Your task to perform on an android device: Empty the shopping cart on amazon. Image 0: 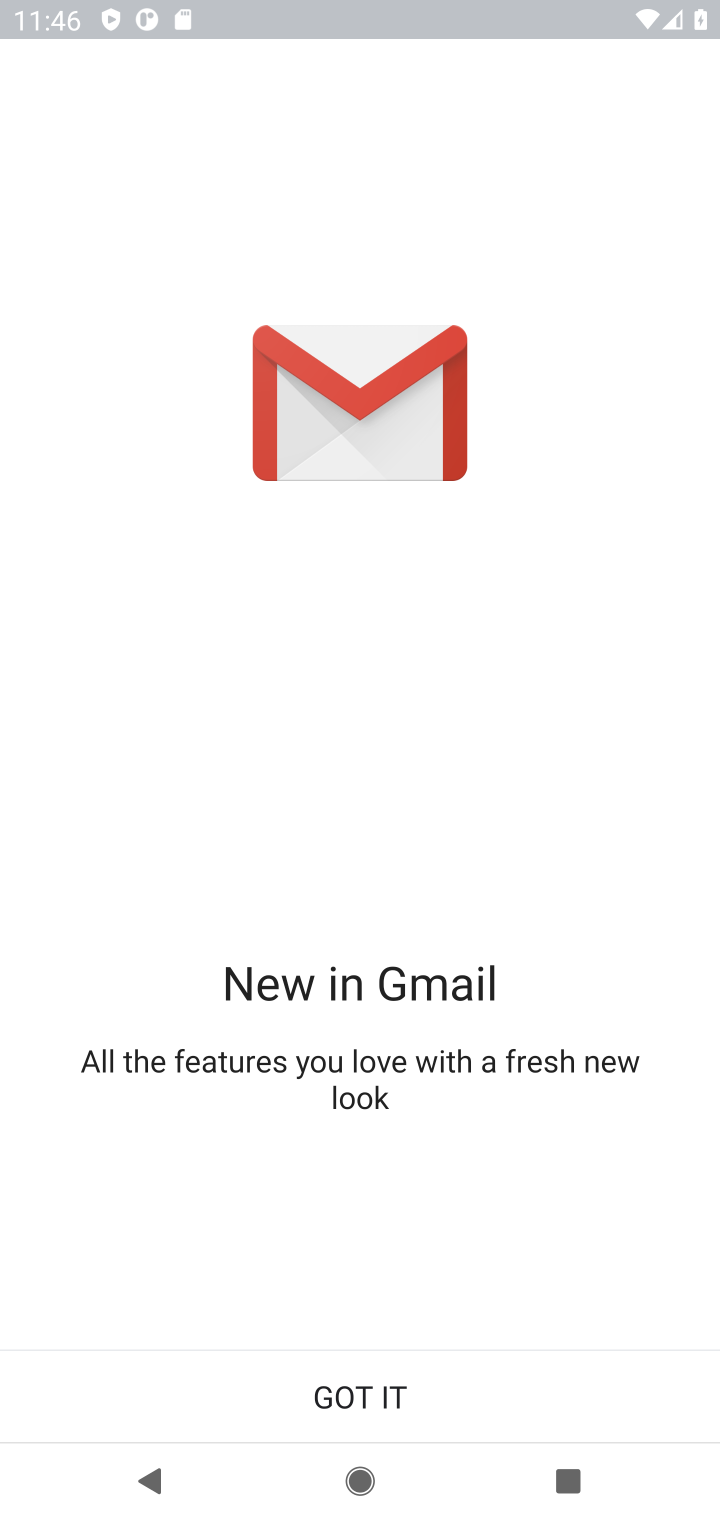
Step 0: press home button
Your task to perform on an android device: Empty the shopping cart on amazon. Image 1: 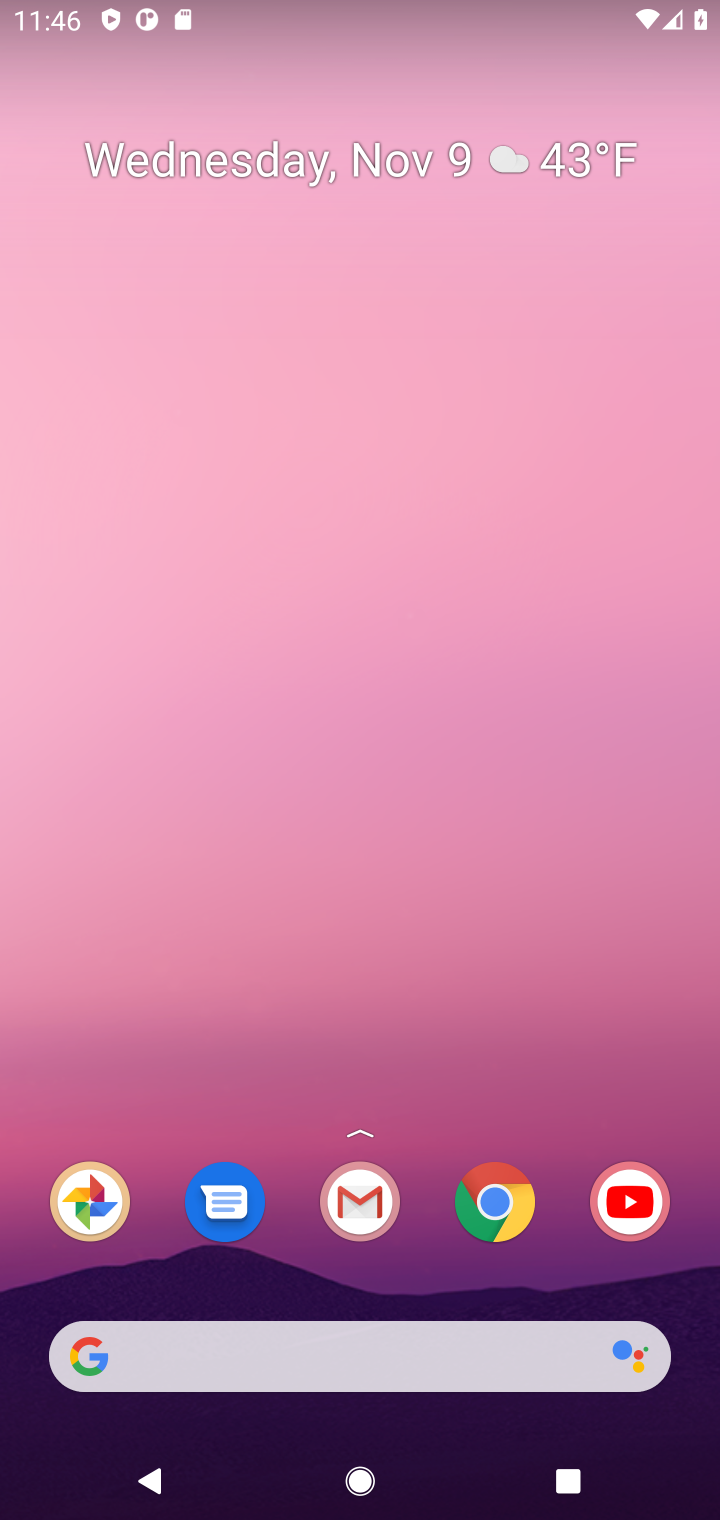
Step 1: click (498, 1213)
Your task to perform on an android device: Empty the shopping cart on amazon. Image 2: 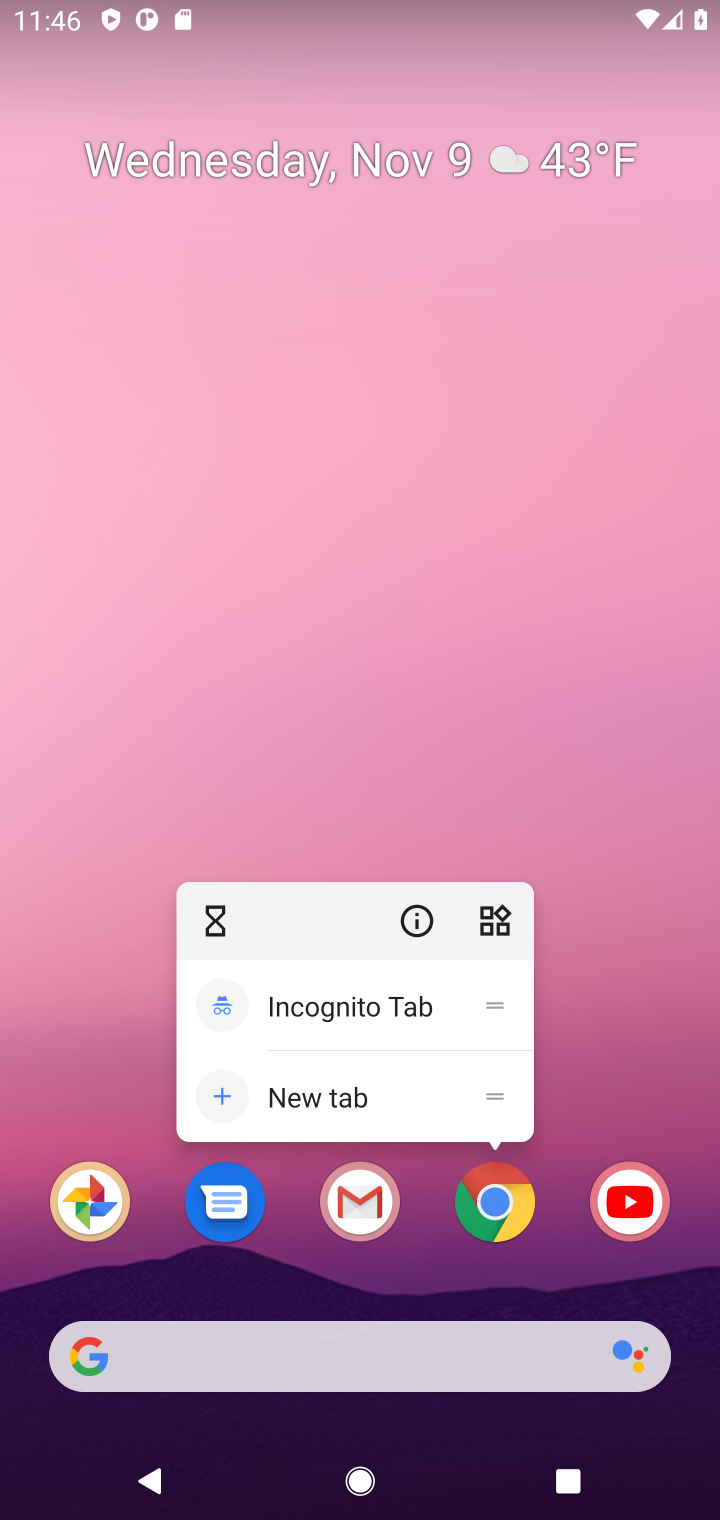
Step 2: click (498, 1213)
Your task to perform on an android device: Empty the shopping cart on amazon. Image 3: 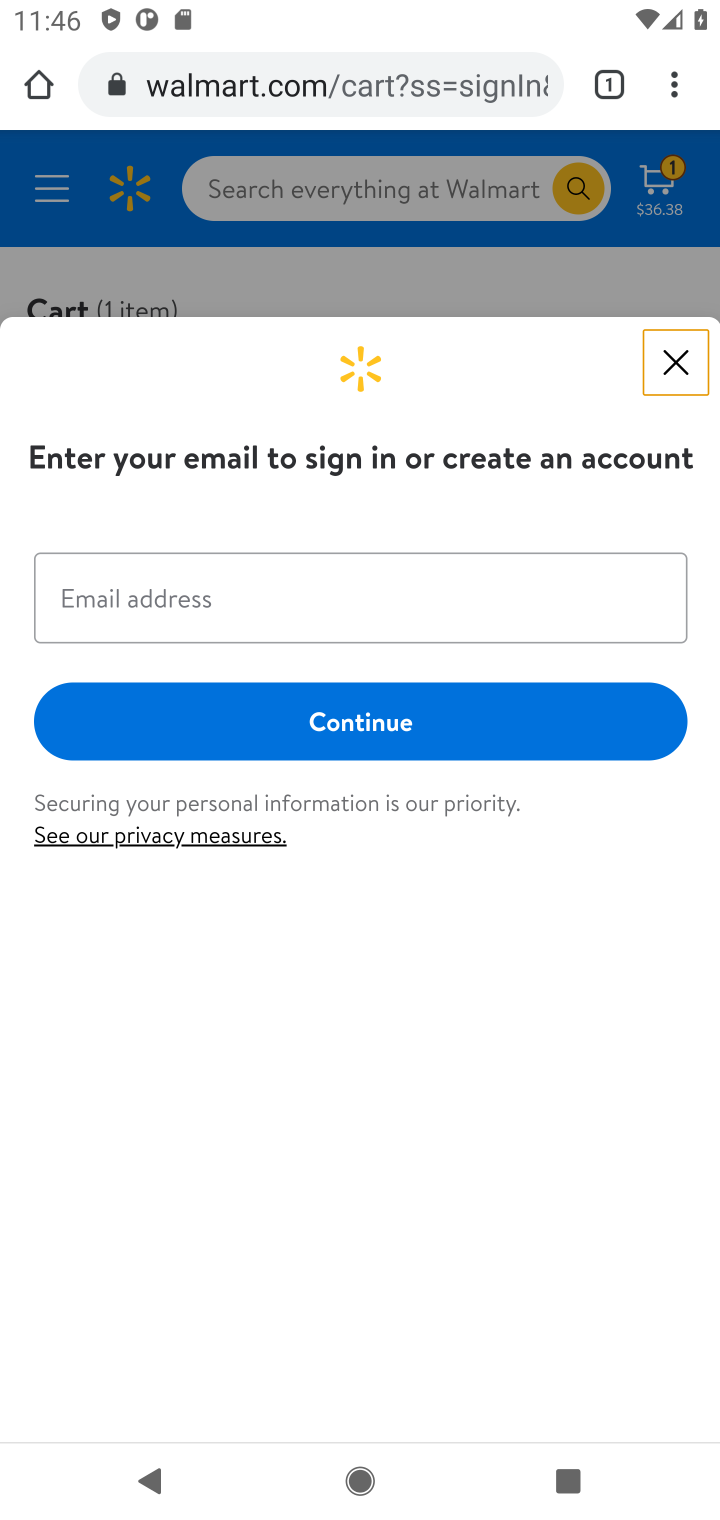
Step 3: click (424, 79)
Your task to perform on an android device: Empty the shopping cart on amazon. Image 4: 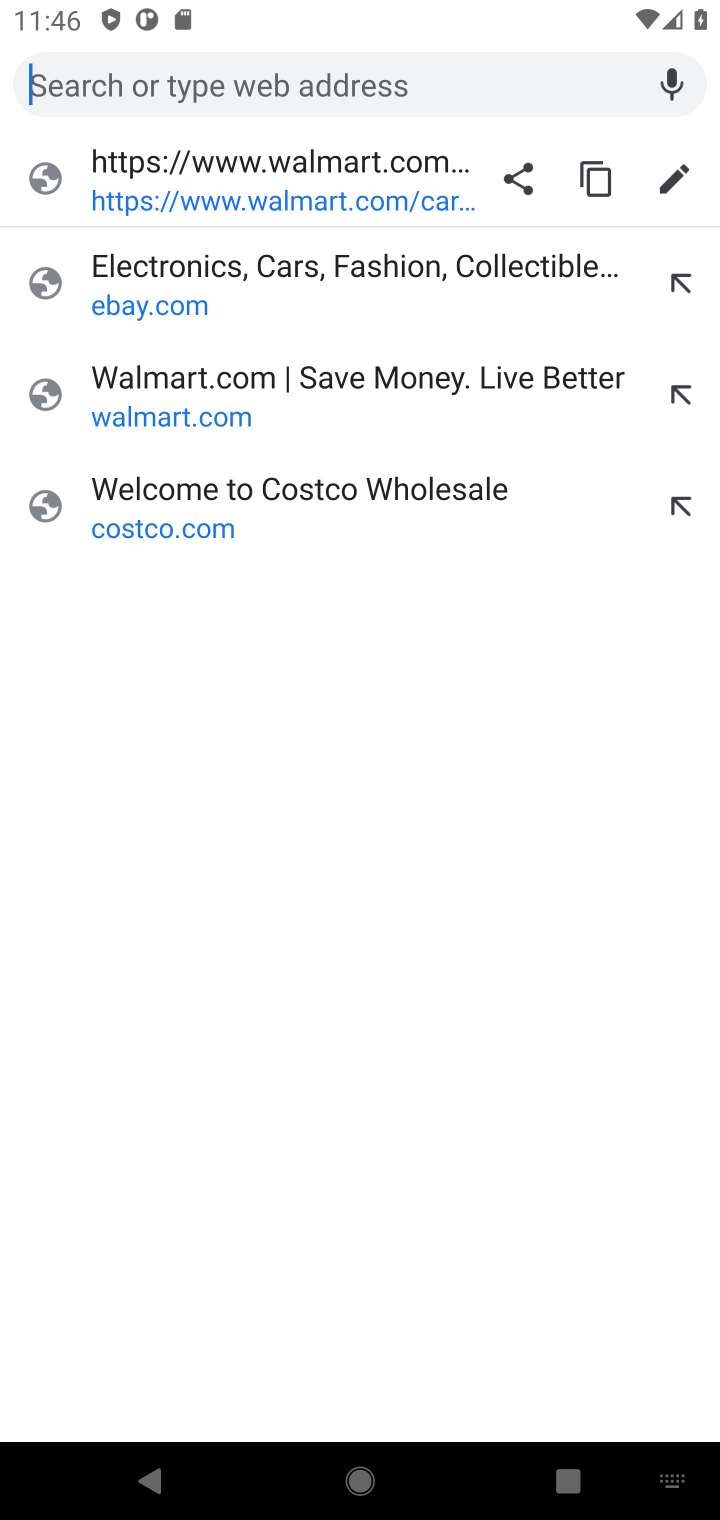
Step 4: type "amazon"
Your task to perform on an android device: Empty the shopping cart on amazon. Image 5: 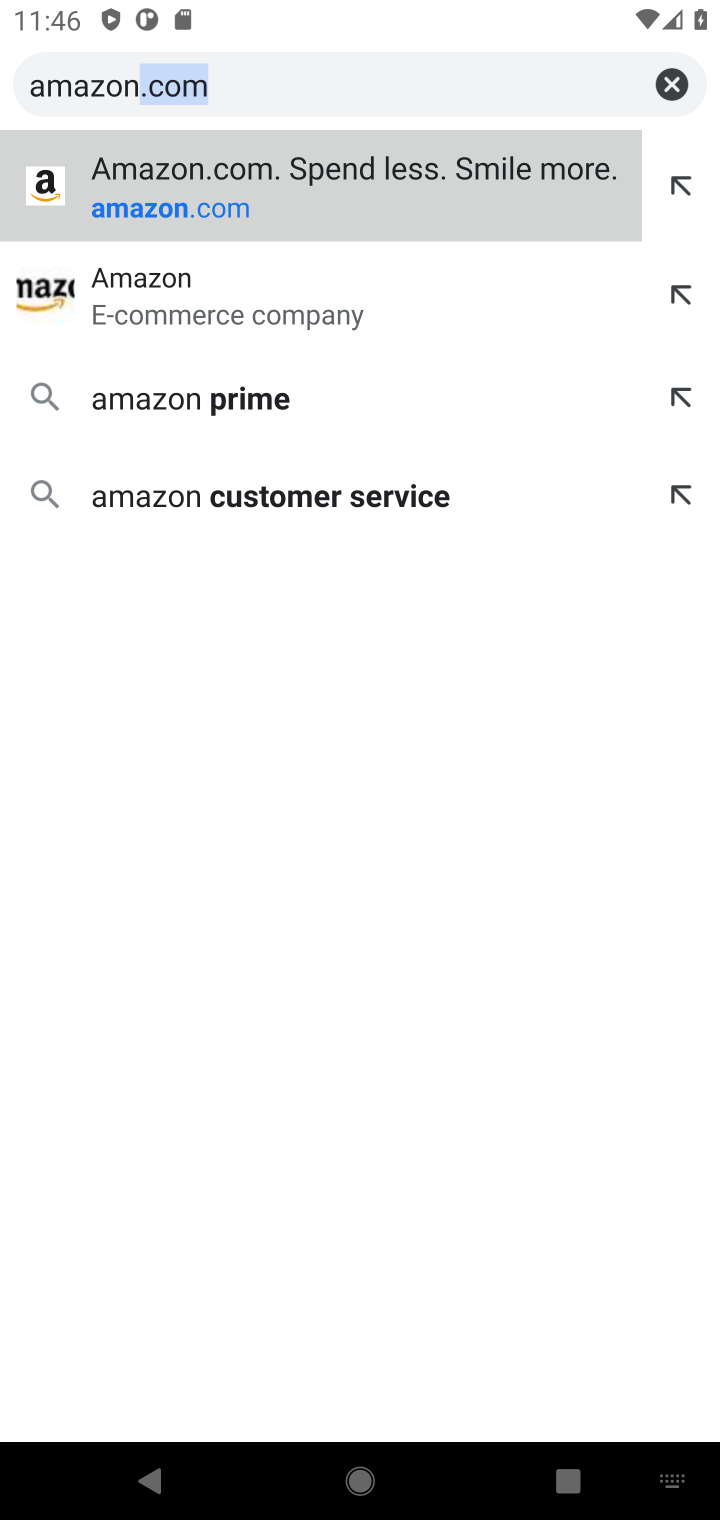
Step 5: press enter
Your task to perform on an android device: Empty the shopping cart on amazon. Image 6: 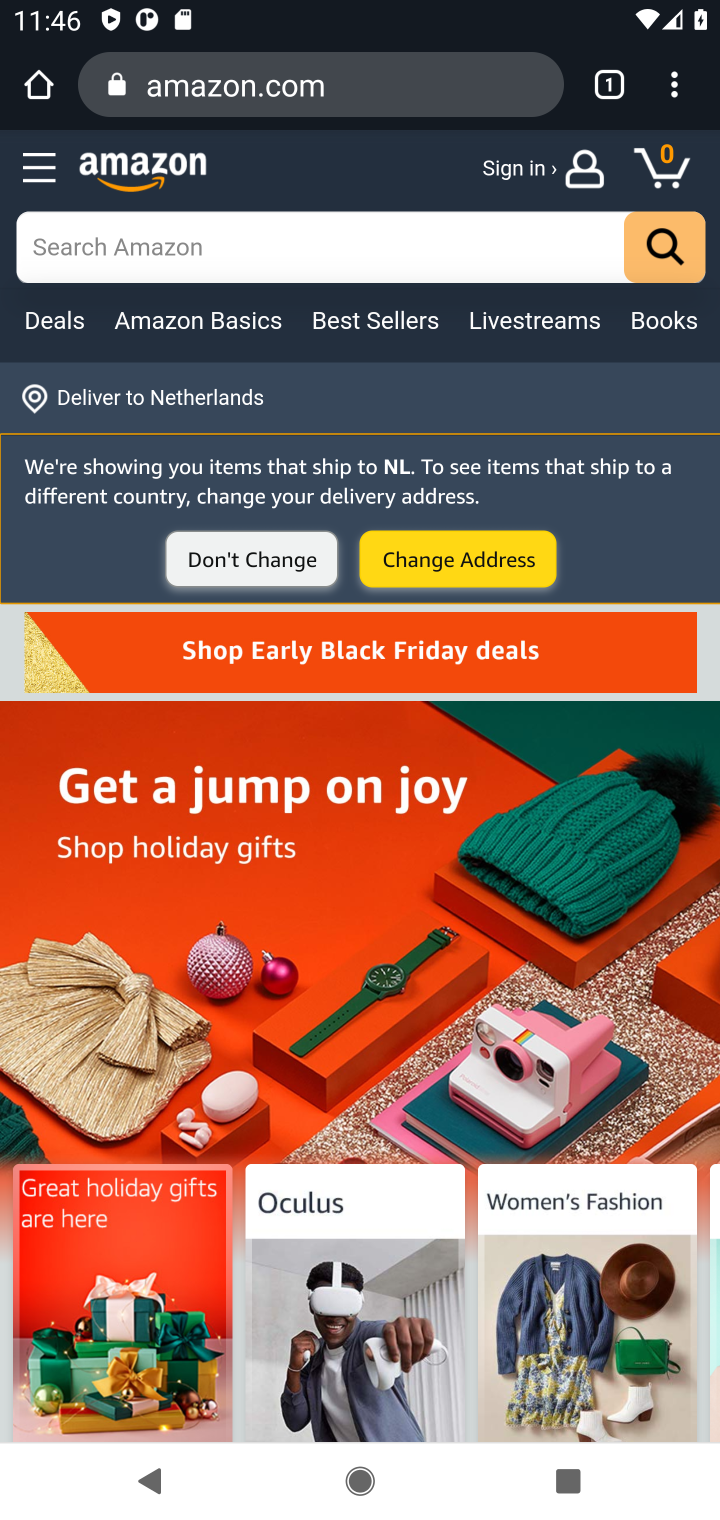
Step 6: click (662, 170)
Your task to perform on an android device: Empty the shopping cart on amazon. Image 7: 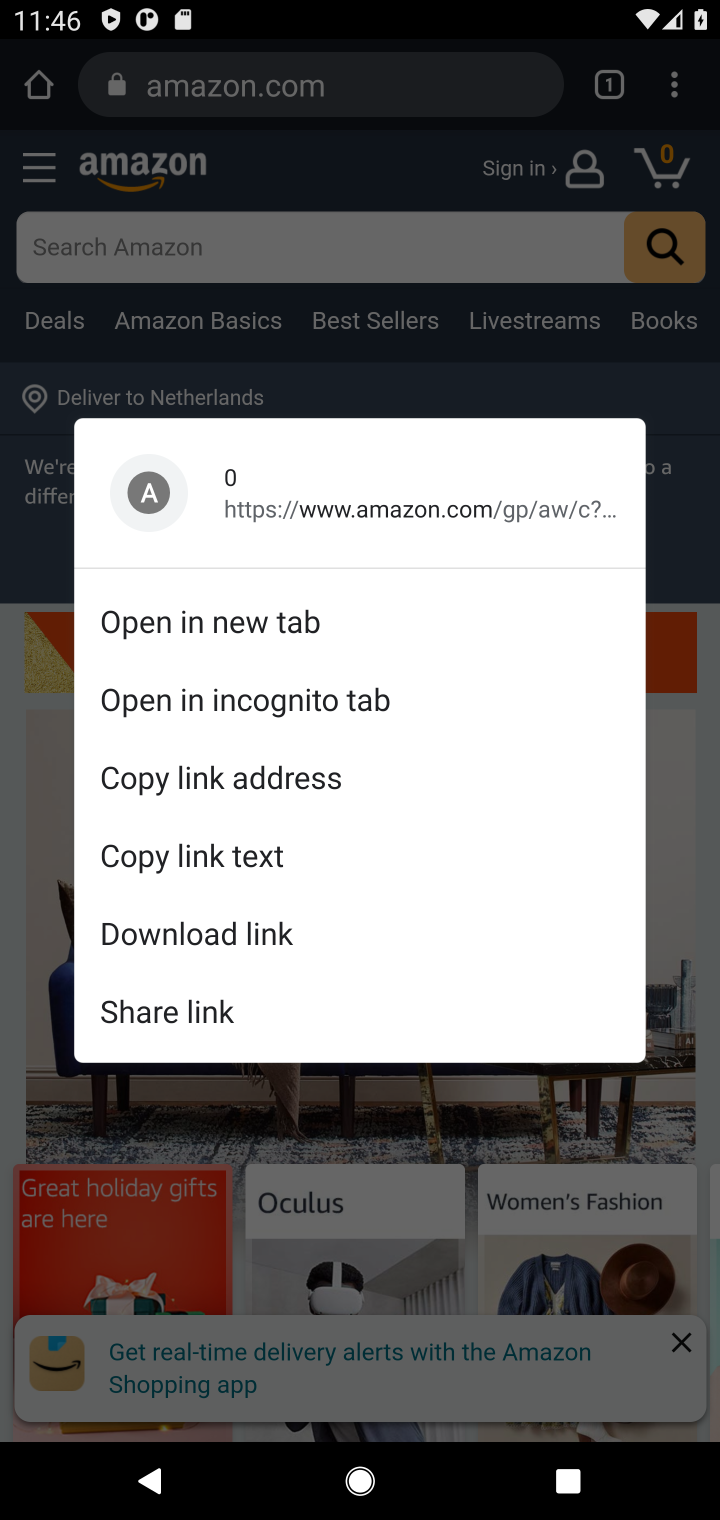
Step 7: click (662, 170)
Your task to perform on an android device: Empty the shopping cart on amazon. Image 8: 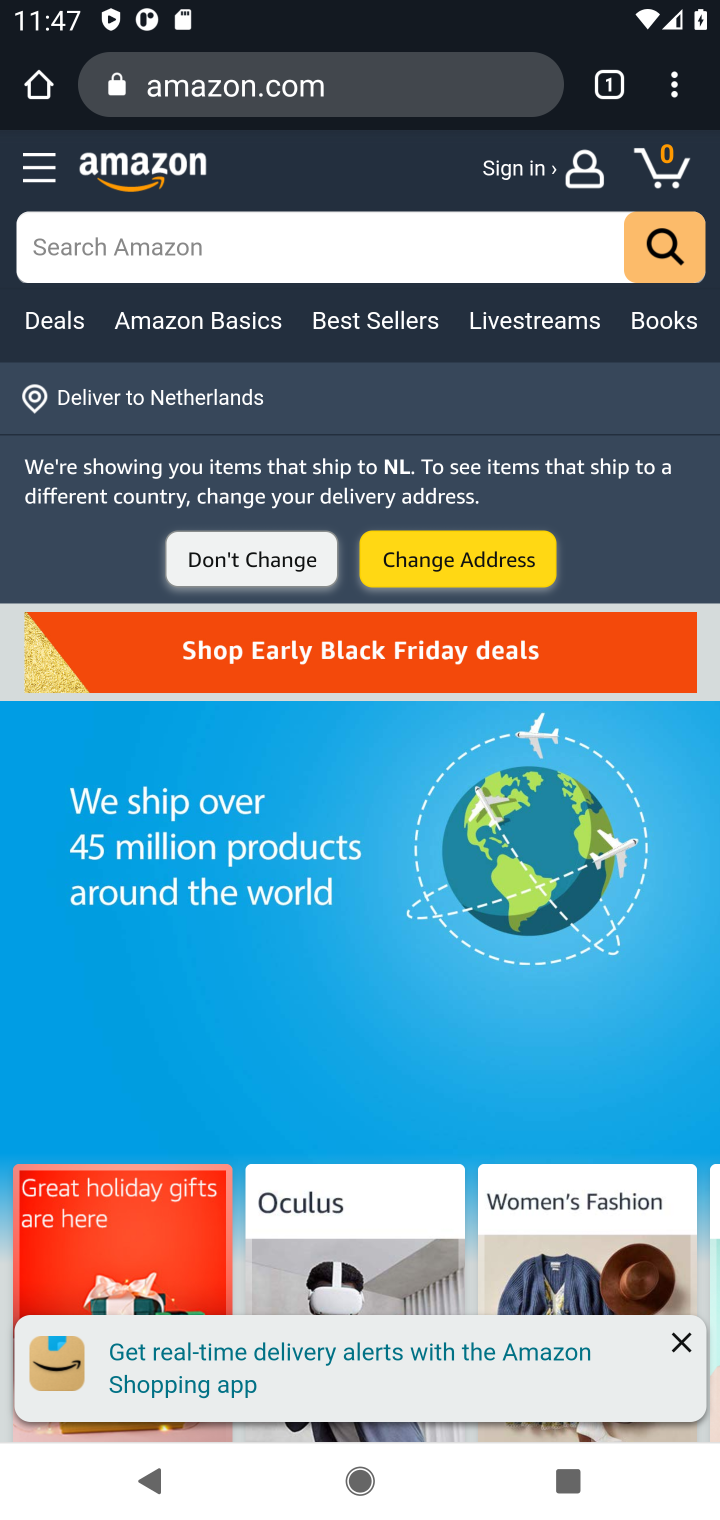
Step 8: task complete